Your task to perform on an android device: star an email in the gmail app Image 0: 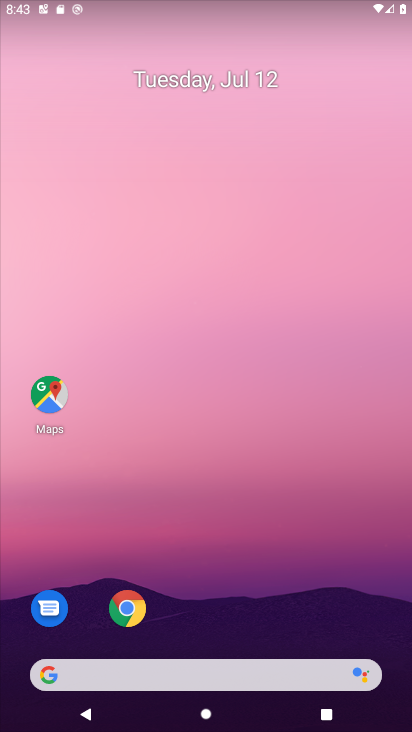
Step 0: drag from (191, 674) to (356, 202)
Your task to perform on an android device: star an email in the gmail app Image 1: 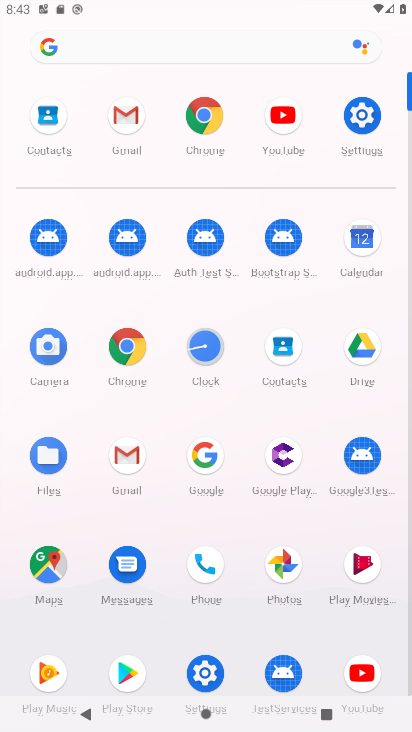
Step 1: click (128, 121)
Your task to perform on an android device: star an email in the gmail app Image 2: 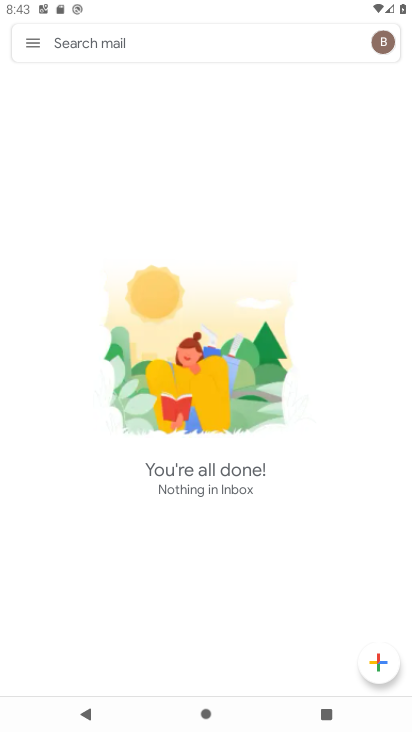
Step 2: task complete